Your task to perform on an android device: open app "Cash App" Image 0: 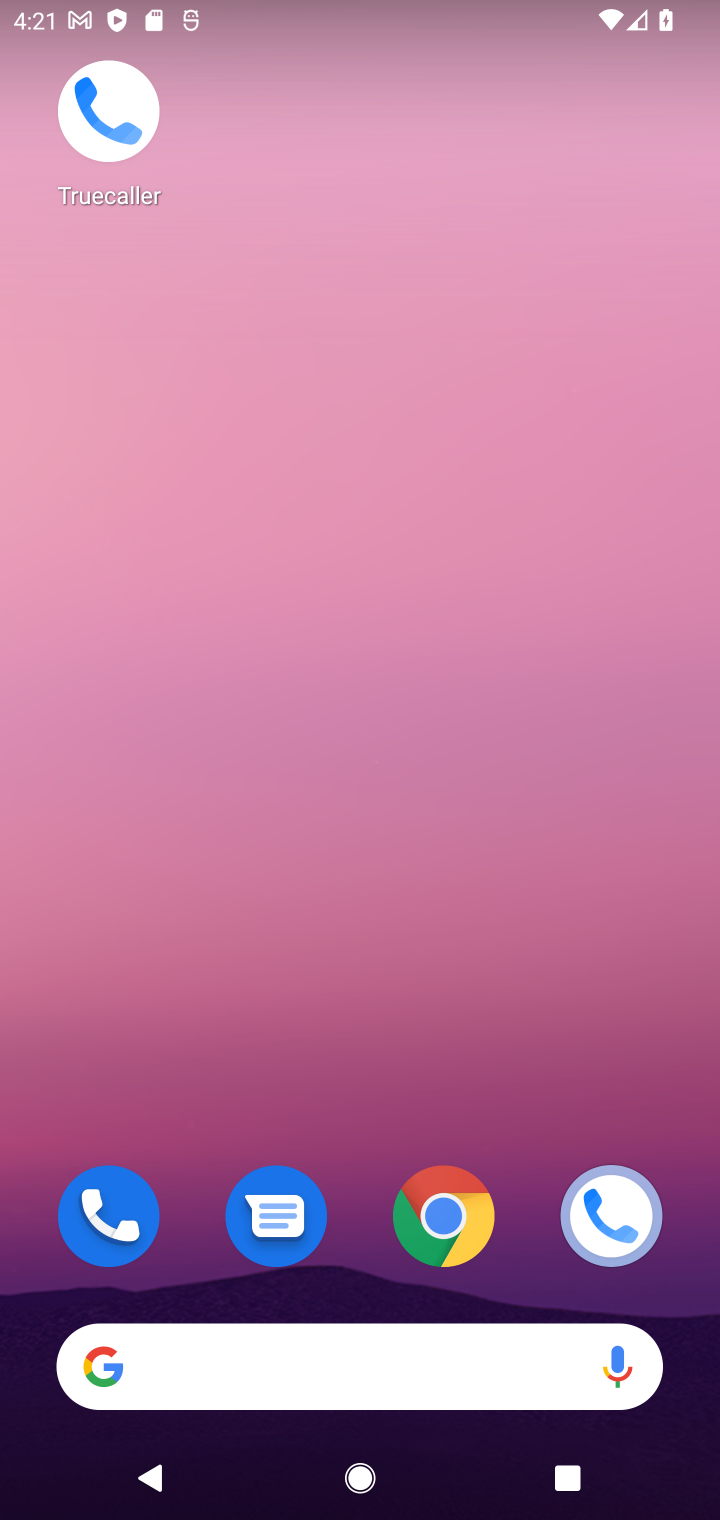
Step 0: drag from (516, 1285) to (436, 132)
Your task to perform on an android device: open app "Cash App" Image 1: 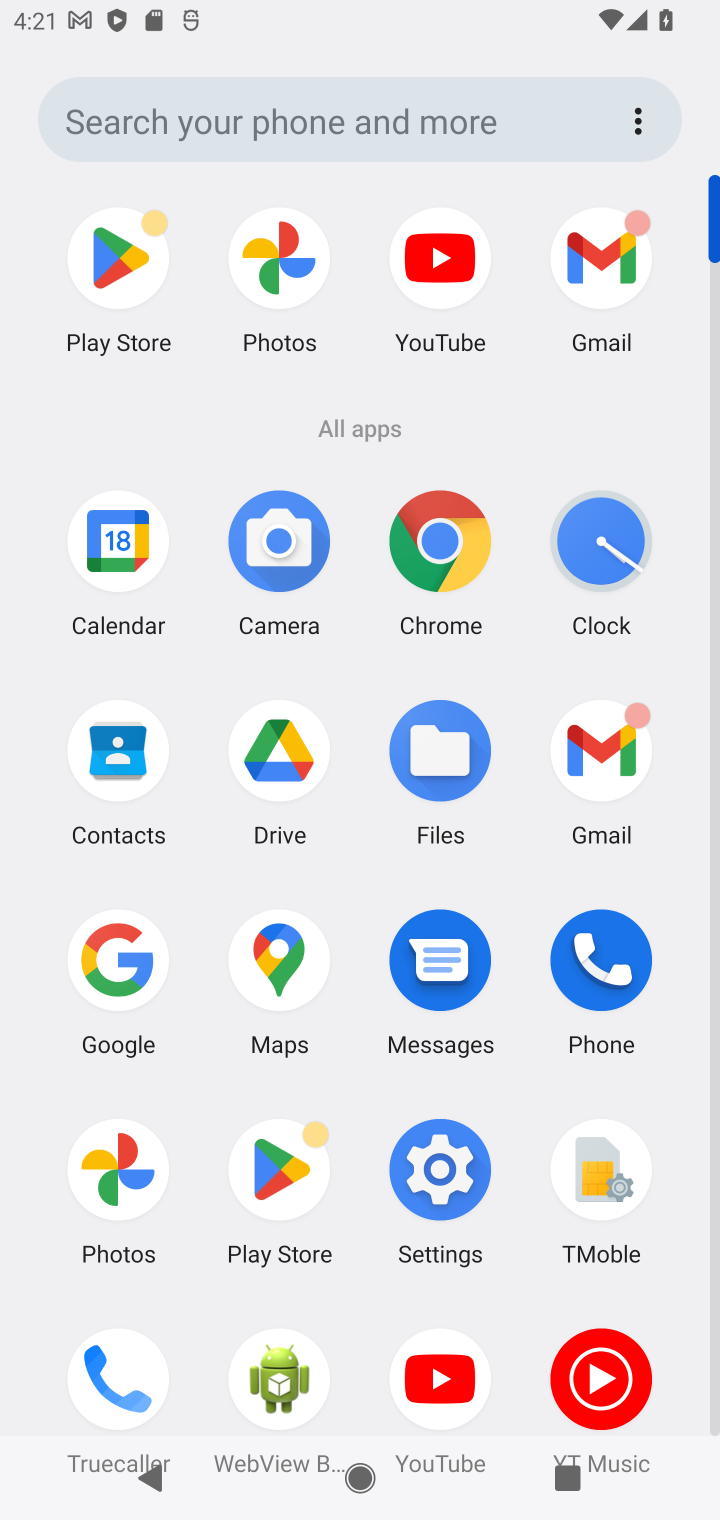
Step 1: click (279, 1177)
Your task to perform on an android device: open app "Cash App" Image 2: 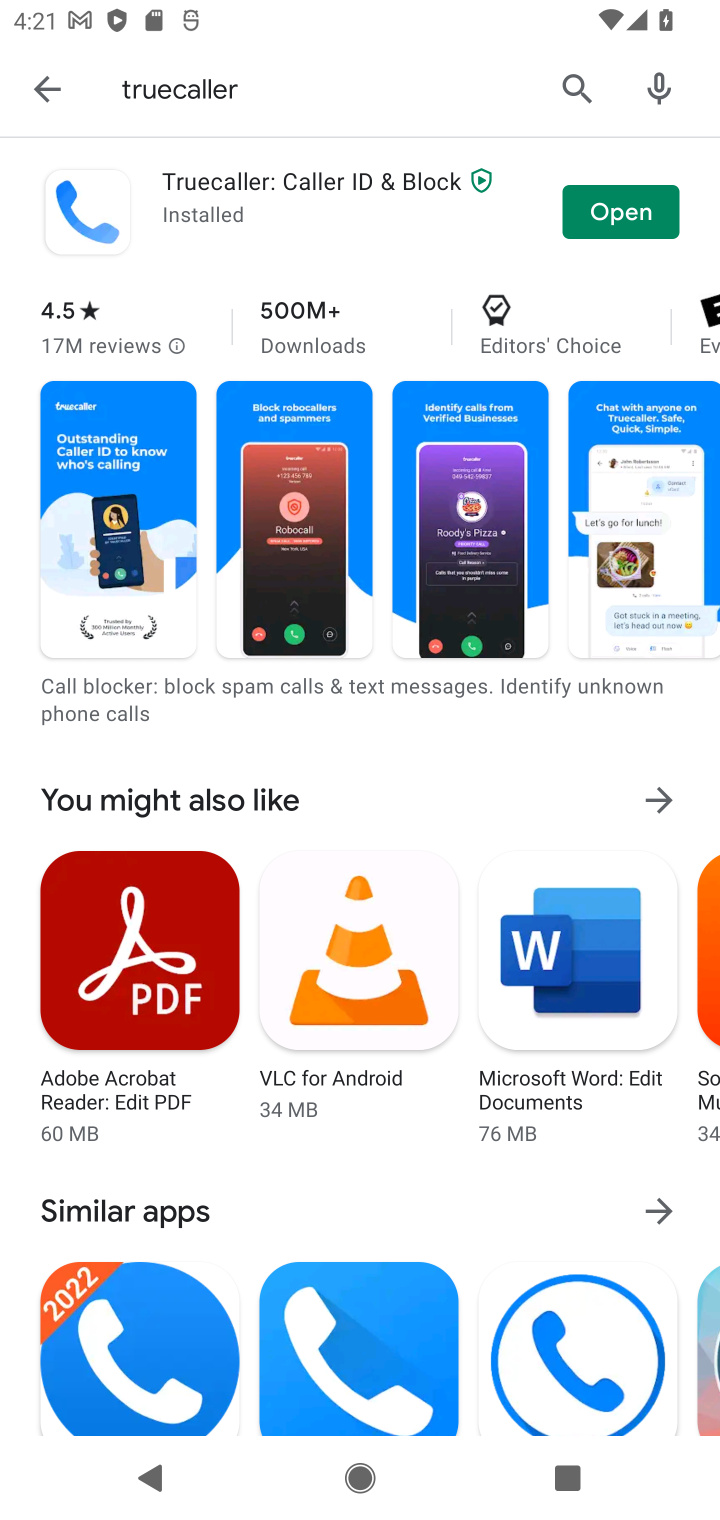
Step 2: click (570, 84)
Your task to perform on an android device: open app "Cash App" Image 3: 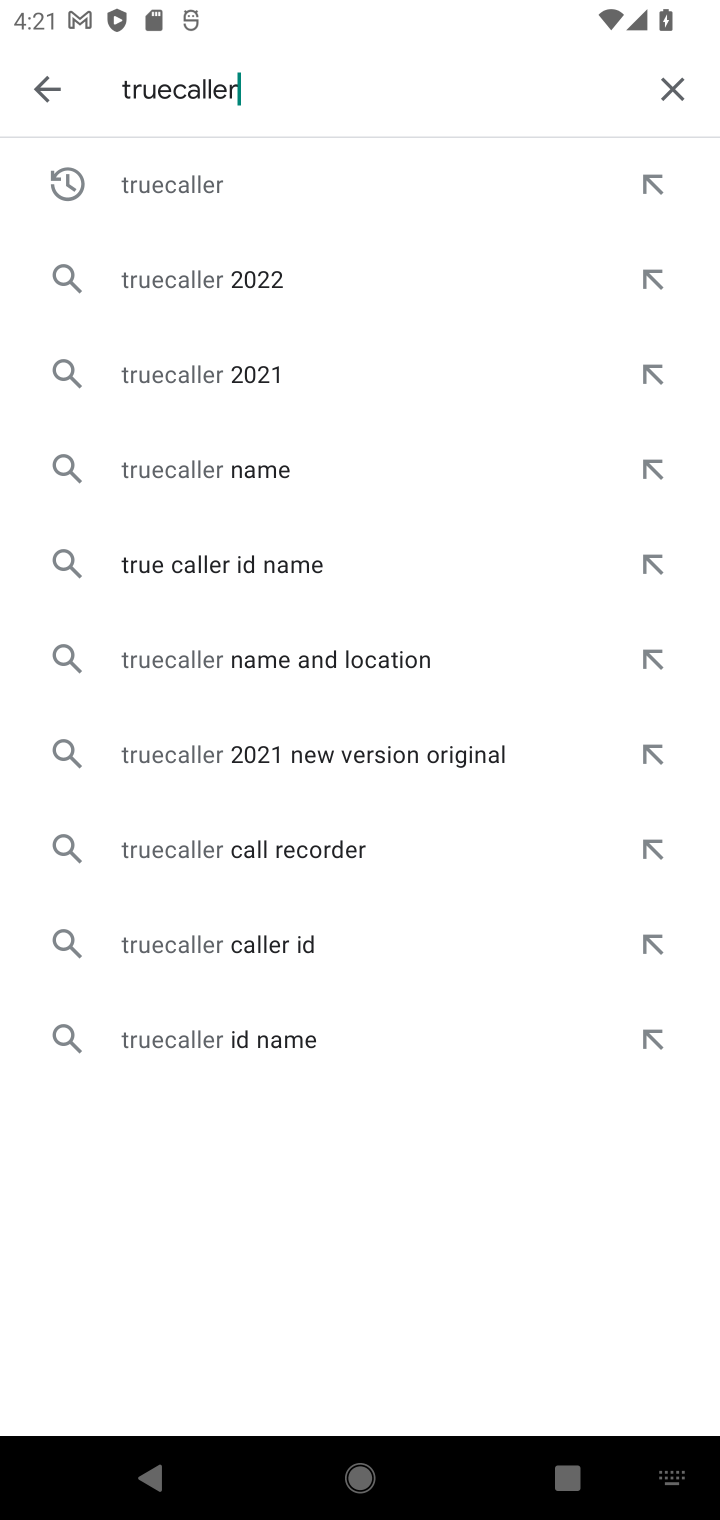
Step 3: click (671, 84)
Your task to perform on an android device: open app "Cash App" Image 4: 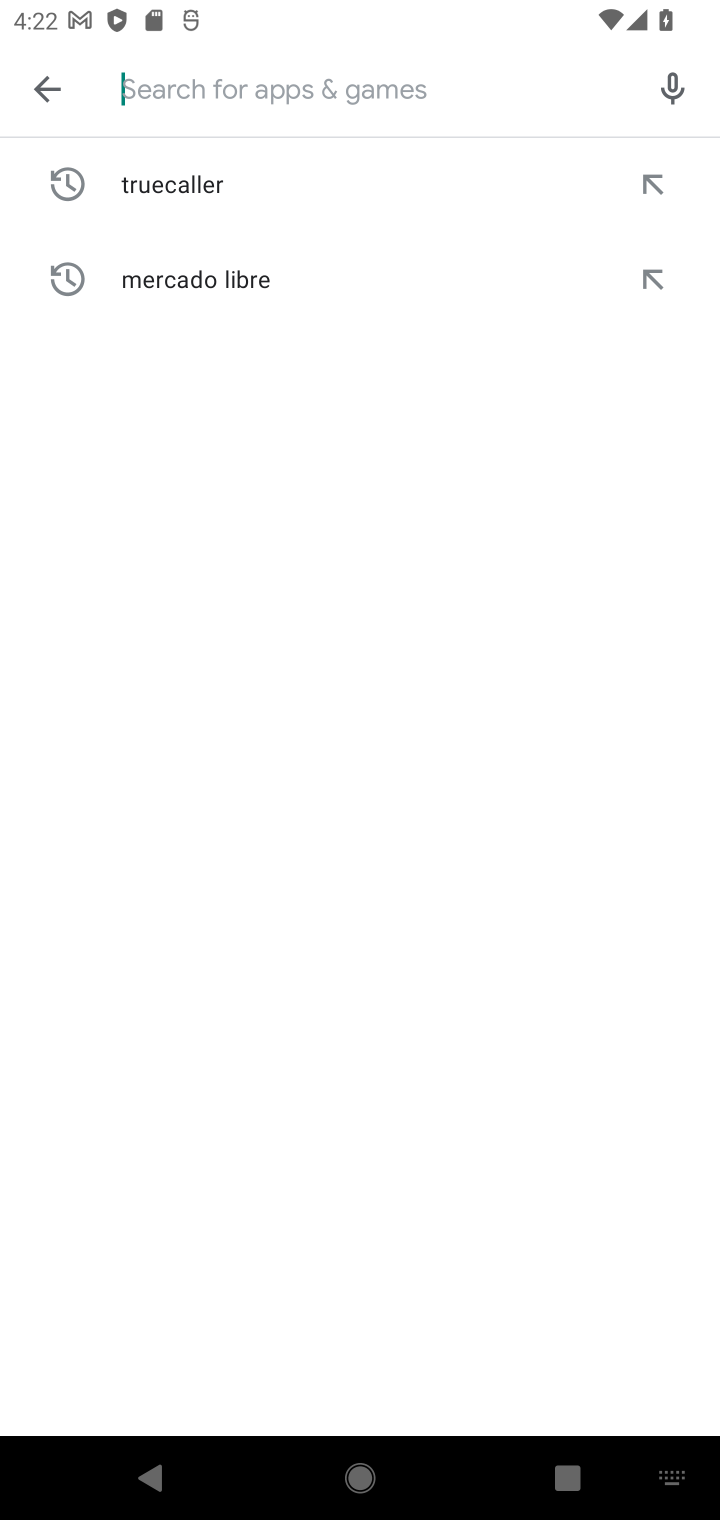
Step 4: type "Cash App"
Your task to perform on an android device: open app "Cash App" Image 5: 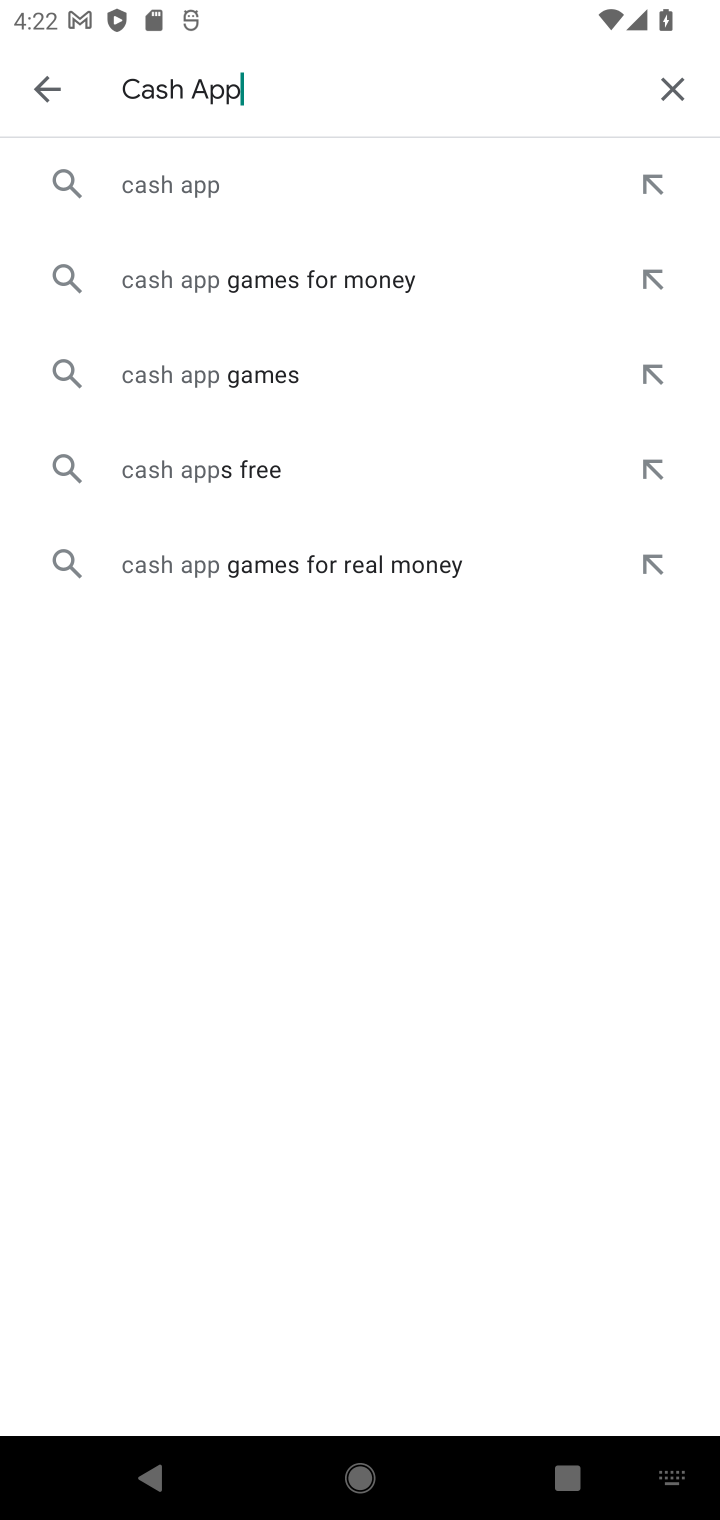
Step 5: click (162, 178)
Your task to perform on an android device: open app "Cash App" Image 6: 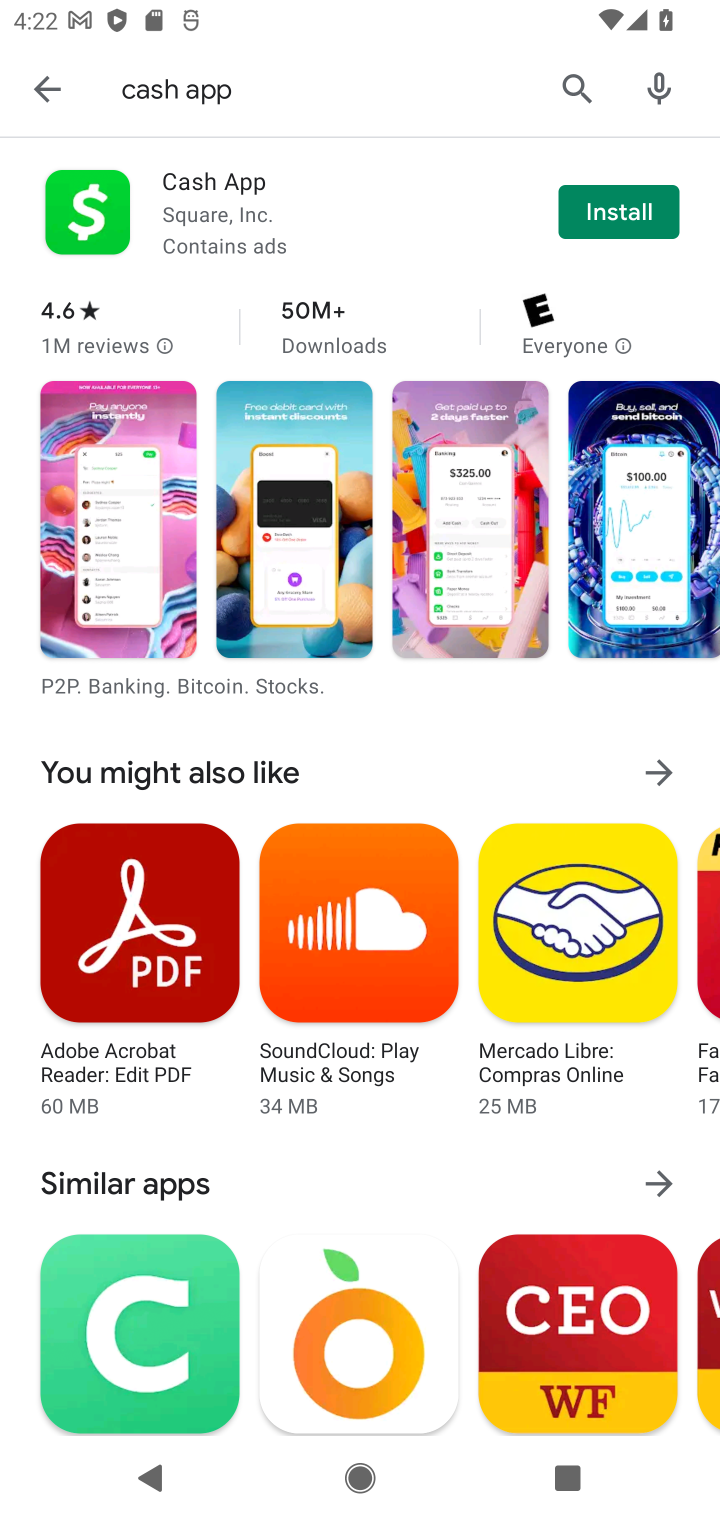
Step 6: task complete